Your task to perform on an android device: turn off airplane mode Image 0: 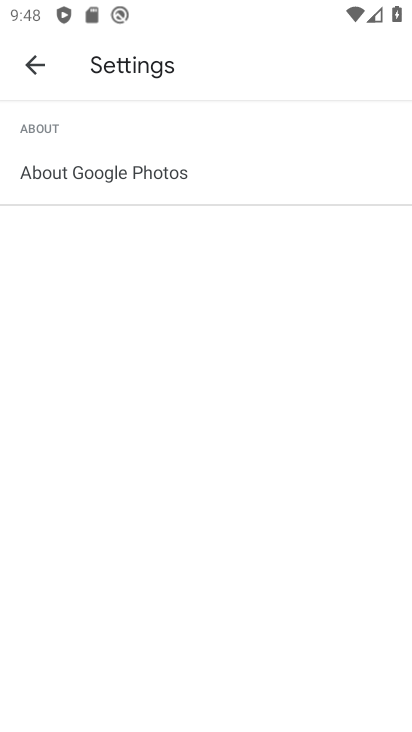
Step 0: press home button
Your task to perform on an android device: turn off airplane mode Image 1: 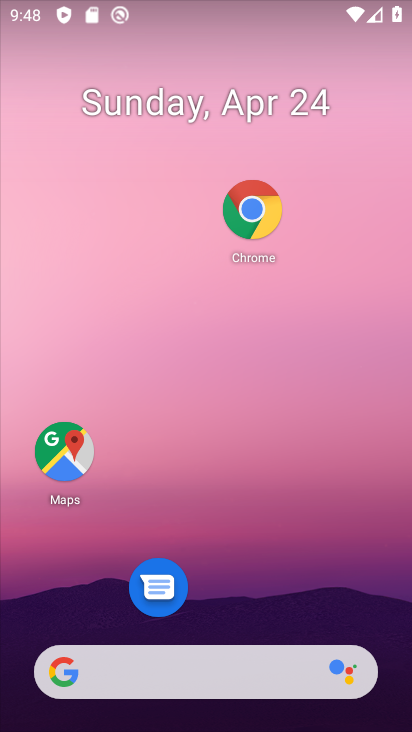
Step 1: task complete